Your task to perform on an android device: show emergency info Image 0: 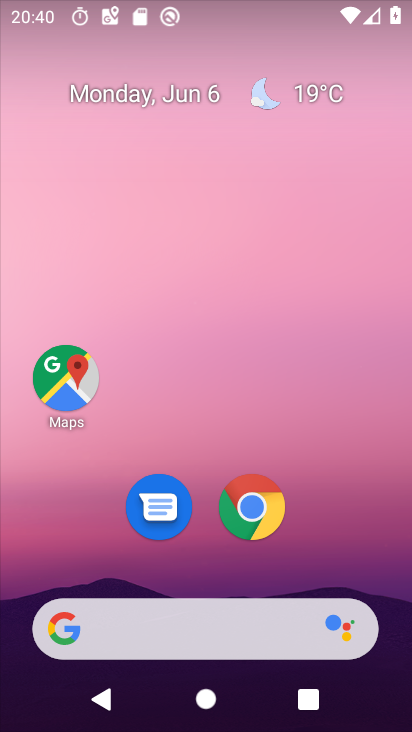
Step 0: press home button
Your task to perform on an android device: show emergency info Image 1: 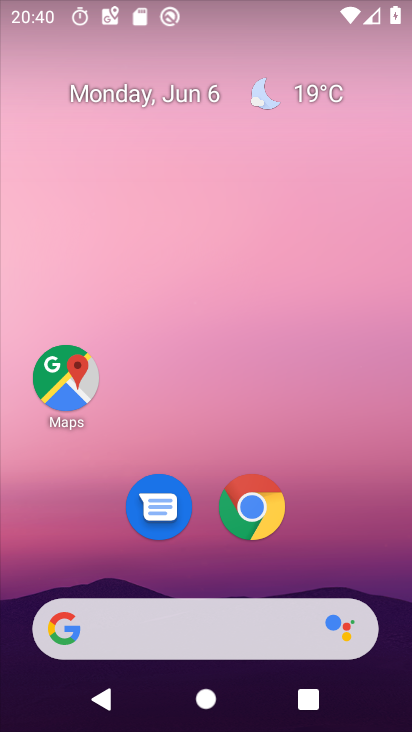
Step 1: drag from (379, 607) to (339, 27)
Your task to perform on an android device: show emergency info Image 2: 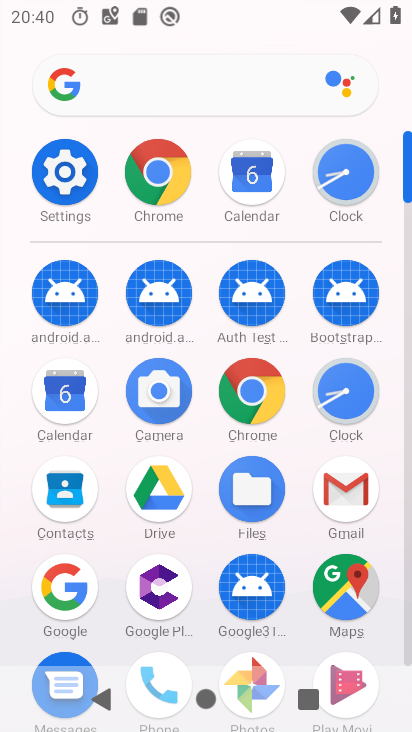
Step 2: click (68, 206)
Your task to perform on an android device: show emergency info Image 3: 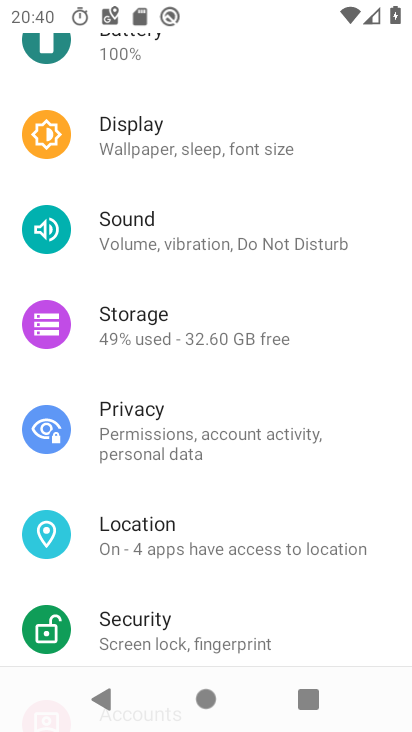
Step 3: drag from (216, 599) to (252, 32)
Your task to perform on an android device: show emergency info Image 4: 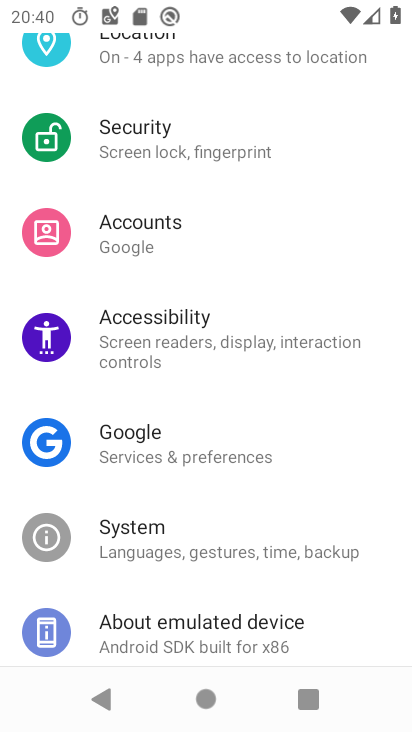
Step 4: click (219, 645)
Your task to perform on an android device: show emergency info Image 5: 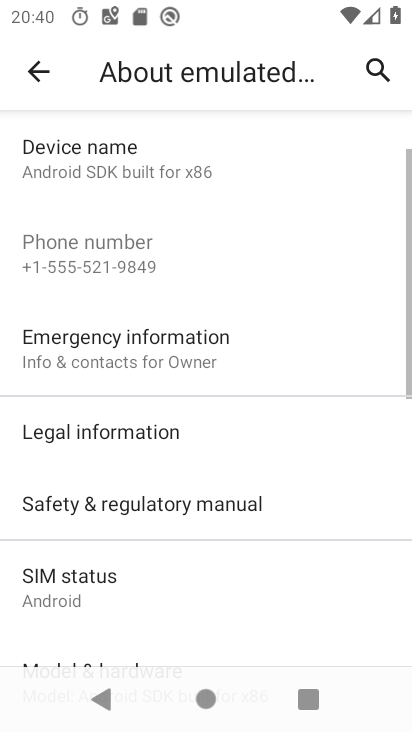
Step 5: click (212, 349)
Your task to perform on an android device: show emergency info Image 6: 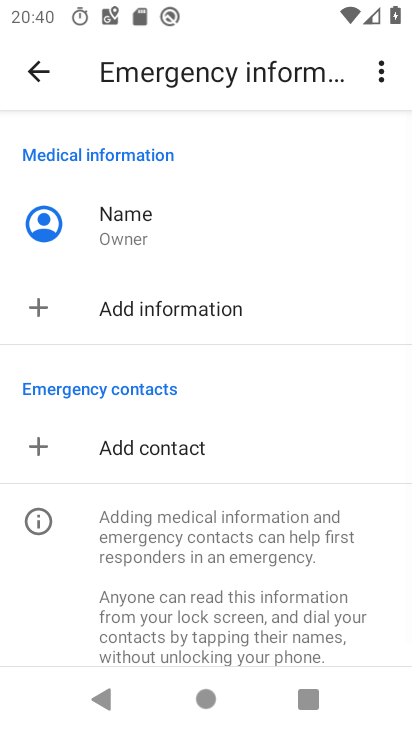
Step 6: task complete